Your task to perform on an android device: Open Google Image 0: 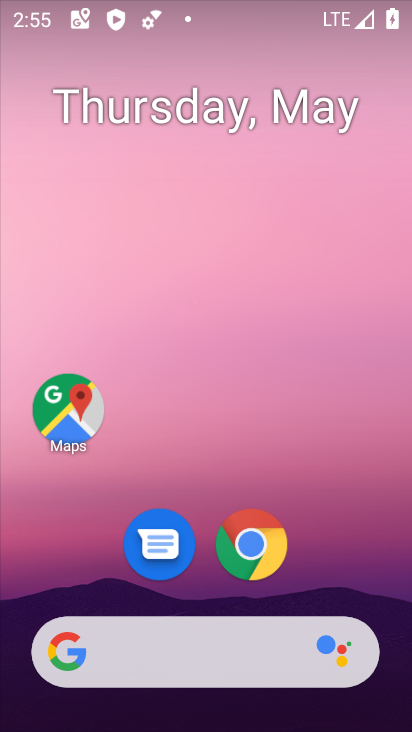
Step 0: drag from (221, 698) to (211, 52)
Your task to perform on an android device: Open Google Image 1: 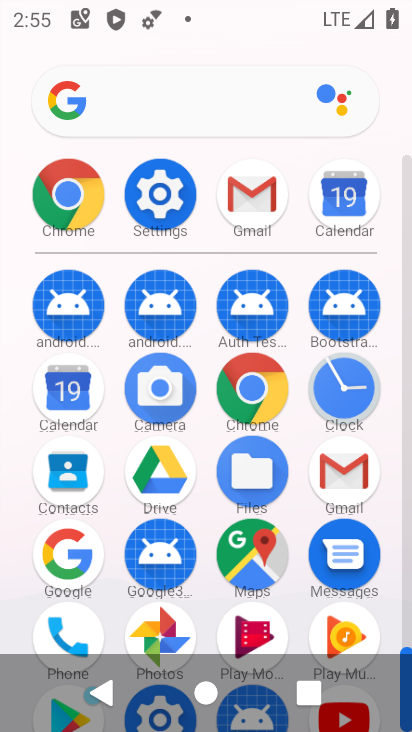
Step 1: click (72, 557)
Your task to perform on an android device: Open Google Image 2: 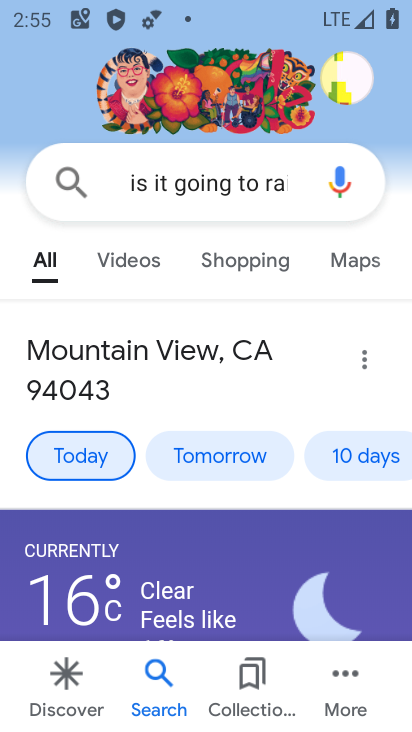
Step 2: task complete